Your task to perform on an android device: change the clock display to digital Image 0: 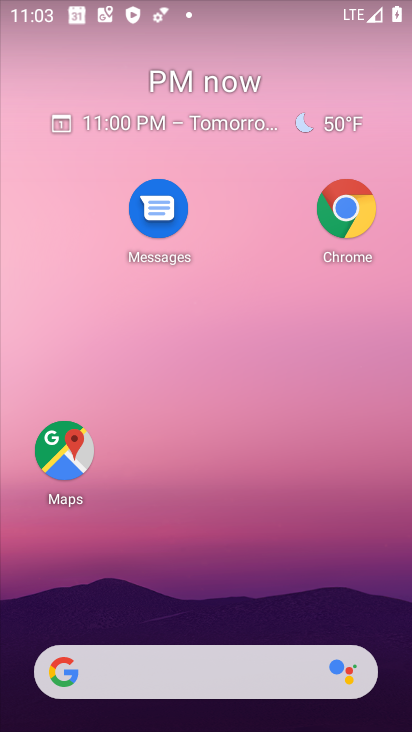
Step 0: press home button
Your task to perform on an android device: change the clock display to digital Image 1: 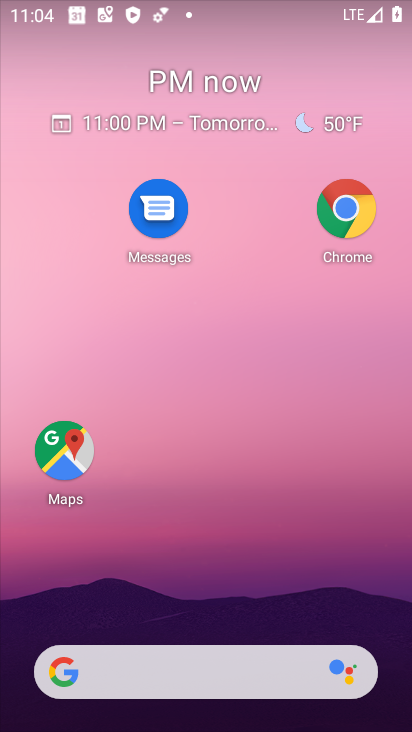
Step 1: drag from (218, 645) to (228, 23)
Your task to perform on an android device: change the clock display to digital Image 2: 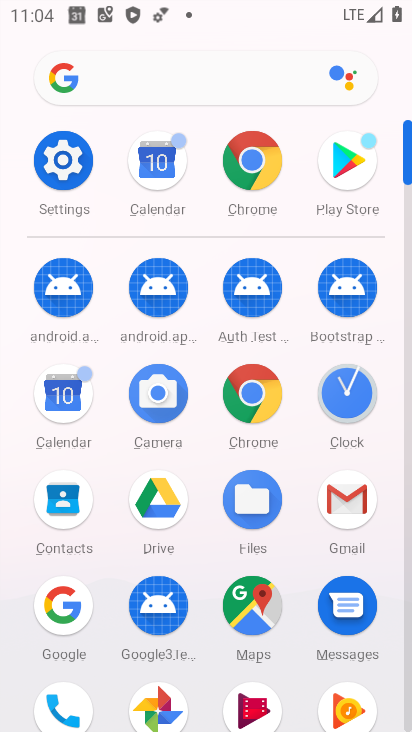
Step 2: click (347, 384)
Your task to perform on an android device: change the clock display to digital Image 3: 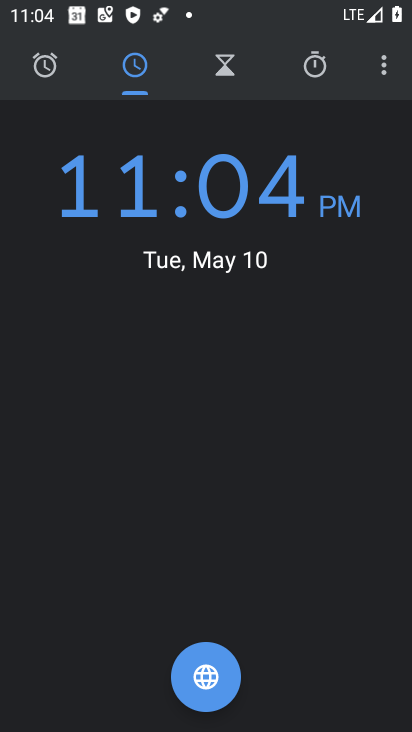
Step 3: click (379, 62)
Your task to perform on an android device: change the clock display to digital Image 4: 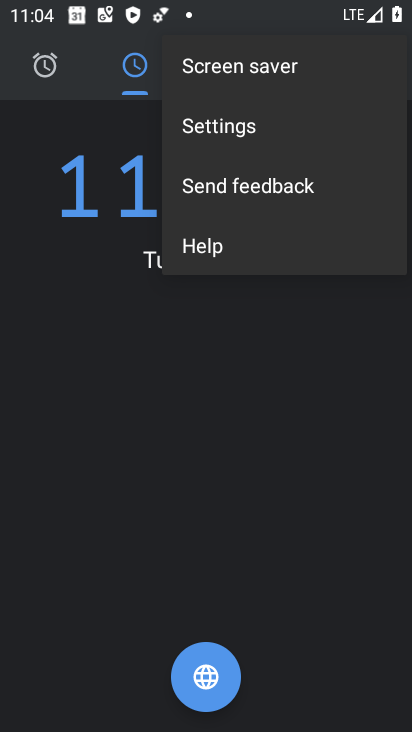
Step 4: click (221, 132)
Your task to perform on an android device: change the clock display to digital Image 5: 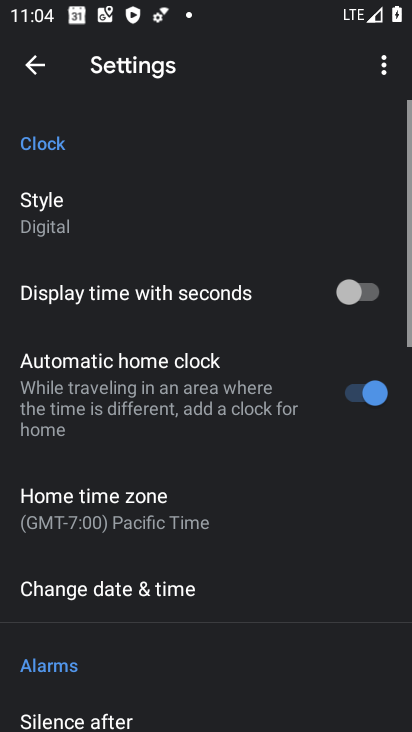
Step 5: click (77, 200)
Your task to perform on an android device: change the clock display to digital Image 6: 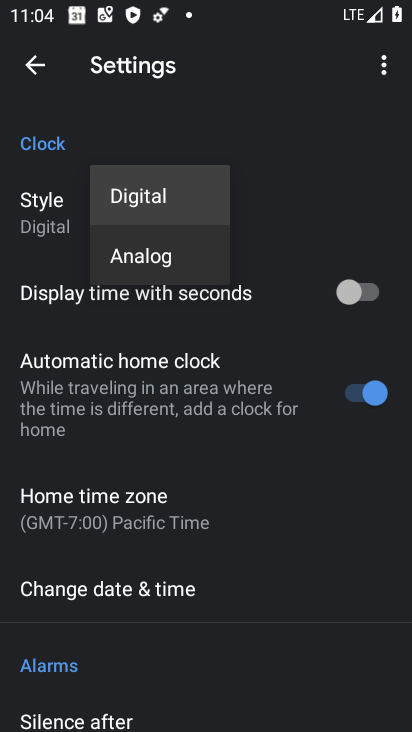
Step 6: click (125, 202)
Your task to perform on an android device: change the clock display to digital Image 7: 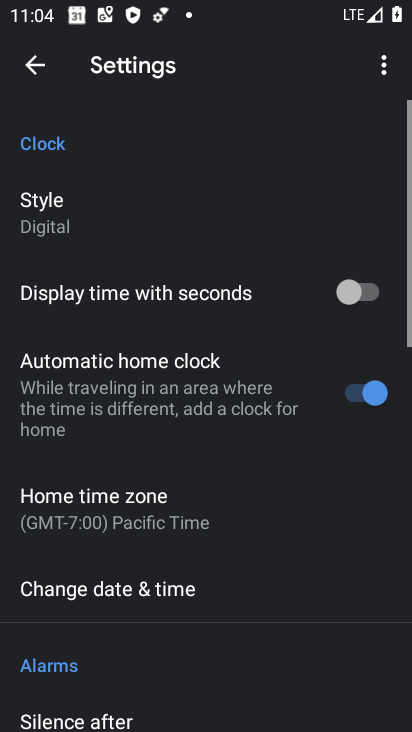
Step 7: task complete